Your task to perform on an android device: change the clock style Image 0: 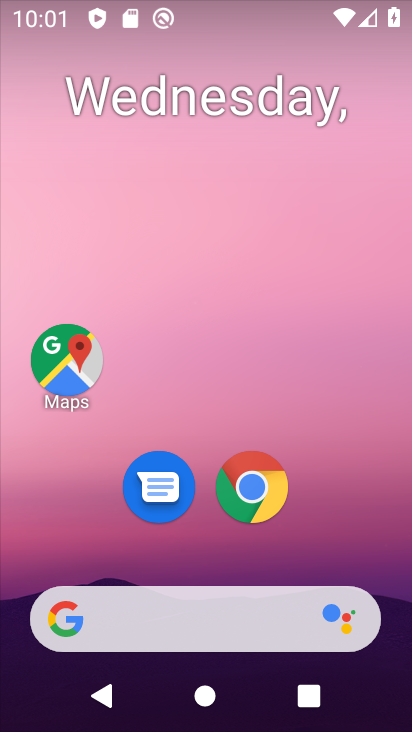
Step 0: drag from (235, 637) to (231, 222)
Your task to perform on an android device: change the clock style Image 1: 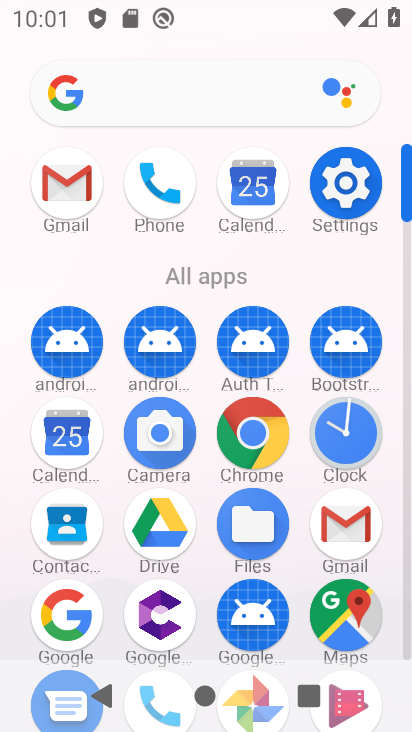
Step 1: click (360, 443)
Your task to perform on an android device: change the clock style Image 2: 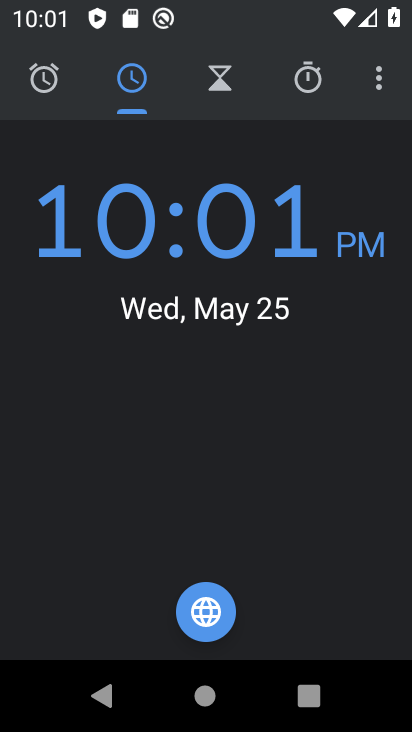
Step 2: click (378, 66)
Your task to perform on an android device: change the clock style Image 3: 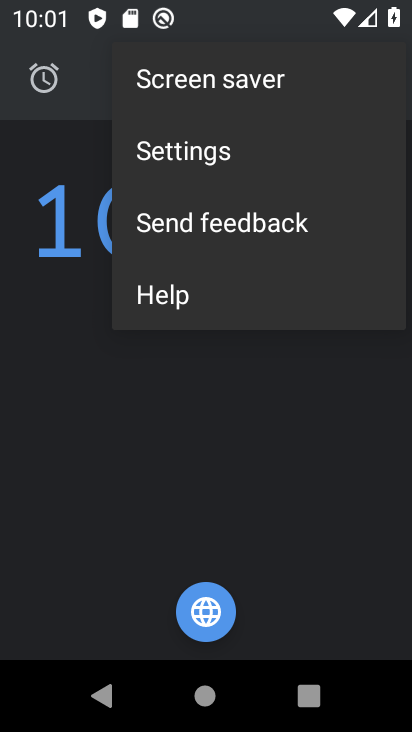
Step 3: click (250, 158)
Your task to perform on an android device: change the clock style Image 4: 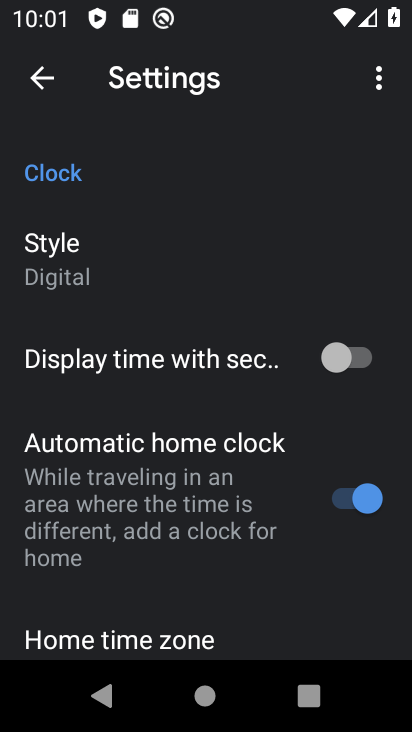
Step 4: click (57, 261)
Your task to perform on an android device: change the clock style Image 5: 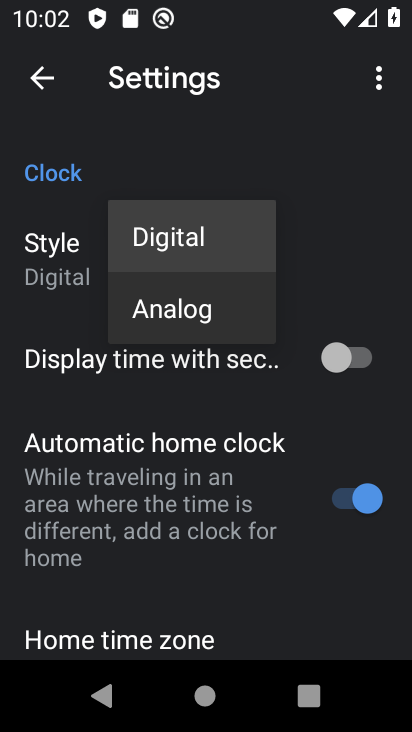
Step 5: click (159, 307)
Your task to perform on an android device: change the clock style Image 6: 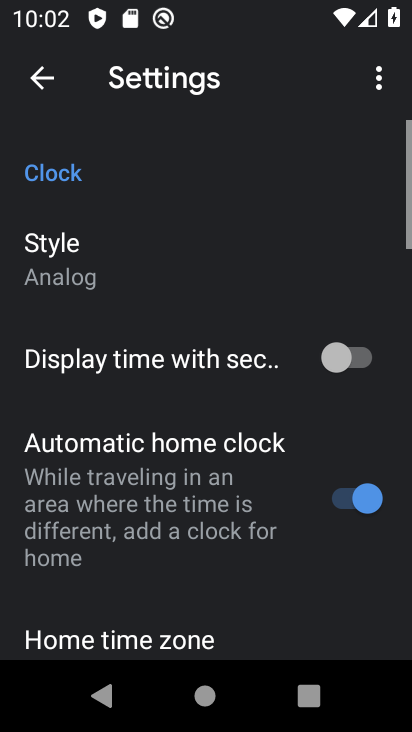
Step 6: task complete